Your task to perform on an android device: Search for sushi restaurants on Maps Image 0: 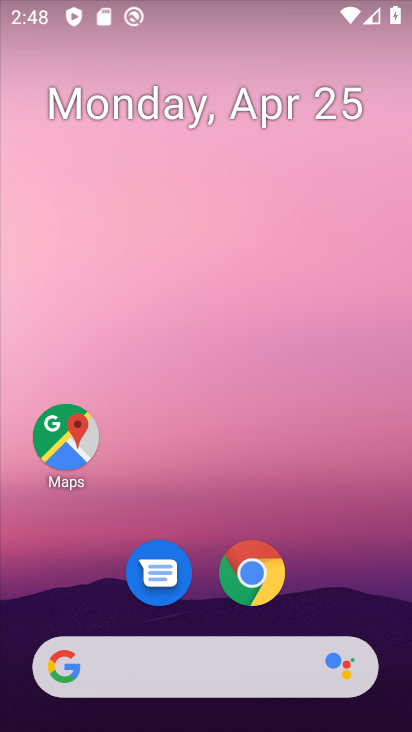
Step 0: click (68, 448)
Your task to perform on an android device: Search for sushi restaurants on Maps Image 1: 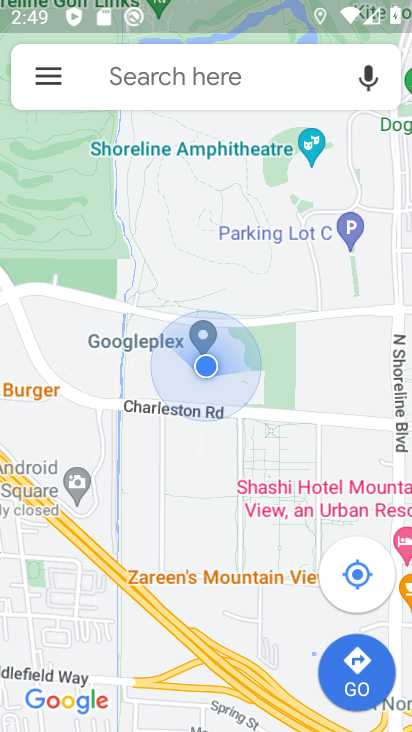
Step 1: click (185, 70)
Your task to perform on an android device: Search for sushi restaurants on Maps Image 2: 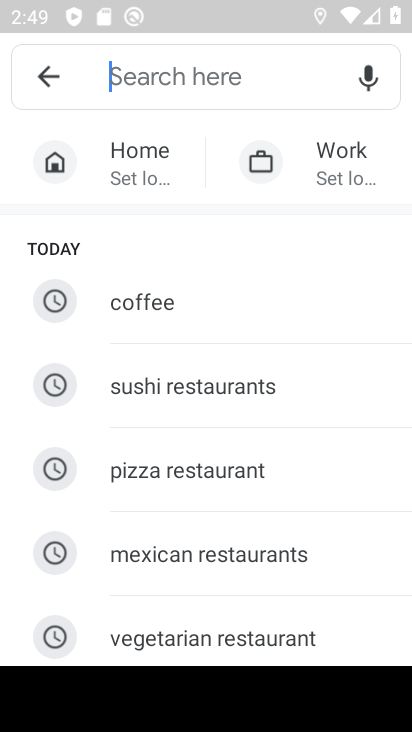
Step 2: click (214, 385)
Your task to perform on an android device: Search for sushi restaurants on Maps Image 3: 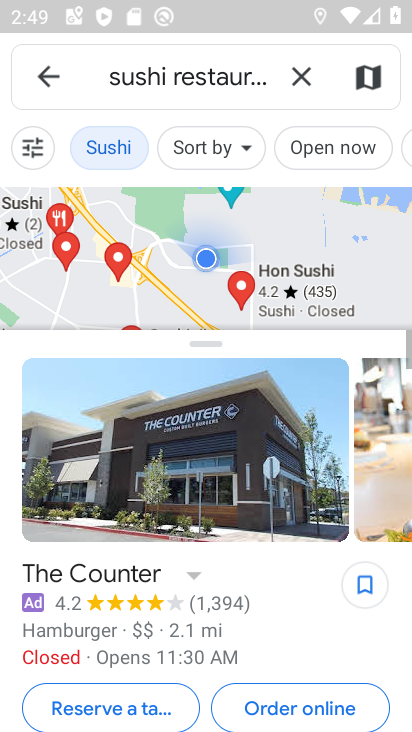
Step 3: task complete